Your task to perform on an android device: turn notification dots on Image 0: 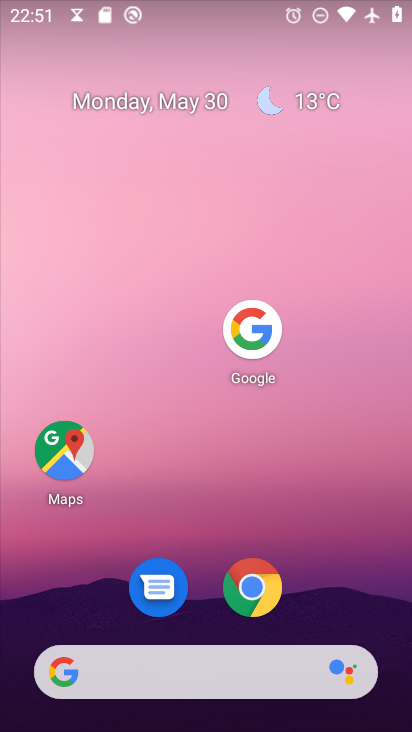
Step 0: drag from (167, 668) to (271, 129)
Your task to perform on an android device: turn notification dots on Image 1: 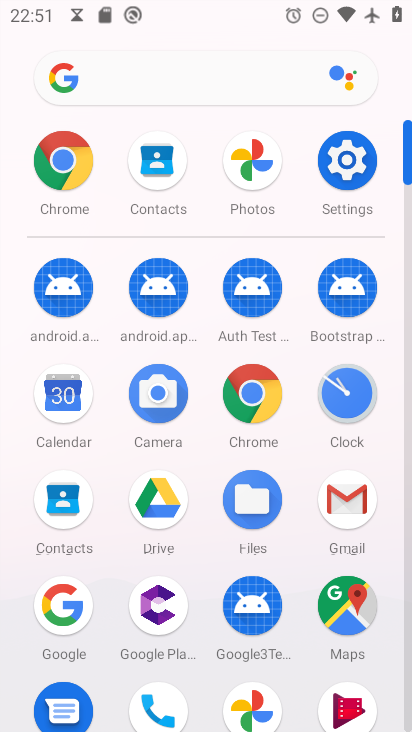
Step 1: click (349, 169)
Your task to perform on an android device: turn notification dots on Image 2: 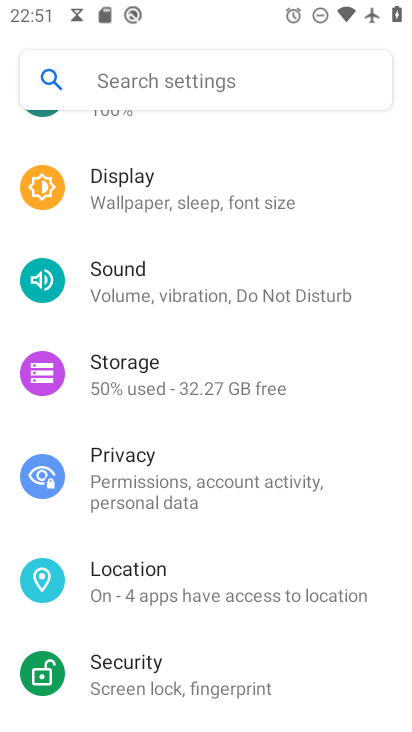
Step 2: drag from (310, 237) to (253, 578)
Your task to perform on an android device: turn notification dots on Image 3: 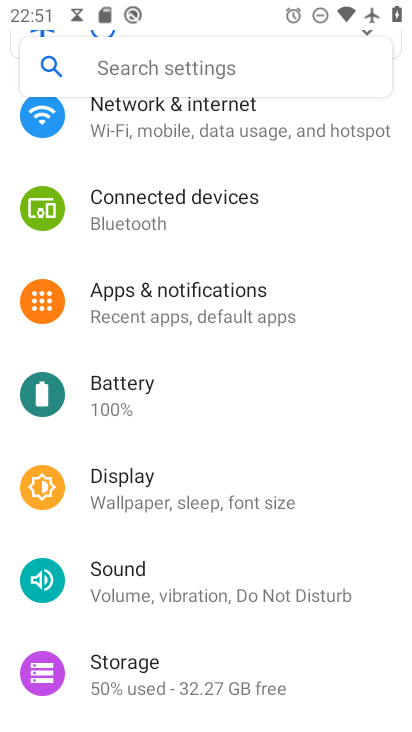
Step 3: click (217, 290)
Your task to perform on an android device: turn notification dots on Image 4: 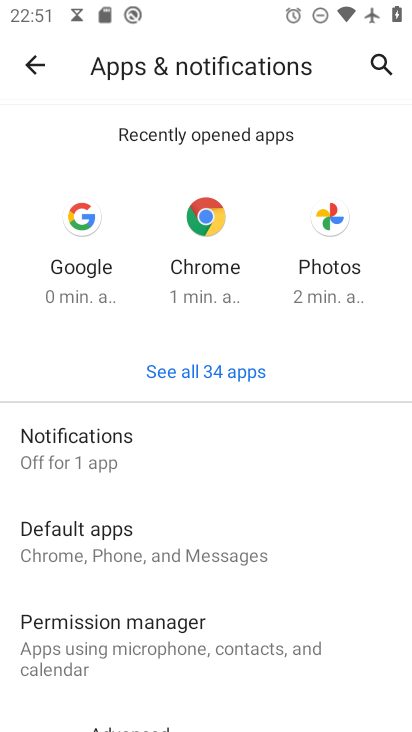
Step 4: click (76, 445)
Your task to perform on an android device: turn notification dots on Image 5: 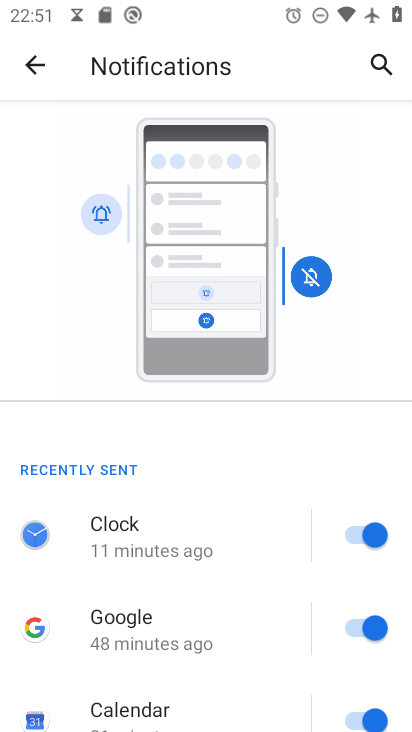
Step 5: drag from (199, 698) to (385, 266)
Your task to perform on an android device: turn notification dots on Image 6: 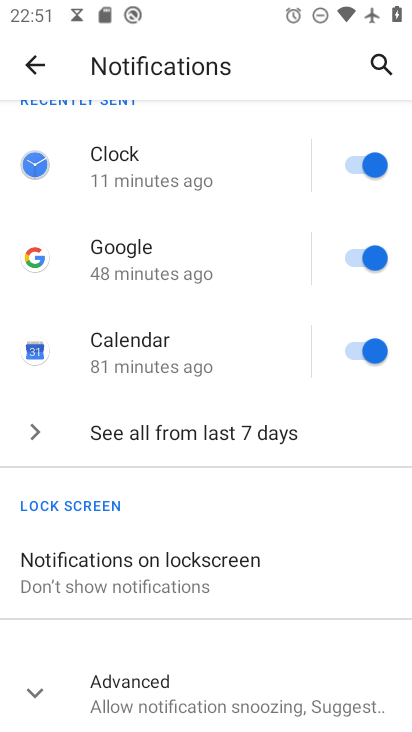
Step 6: drag from (304, 638) to (336, 434)
Your task to perform on an android device: turn notification dots on Image 7: 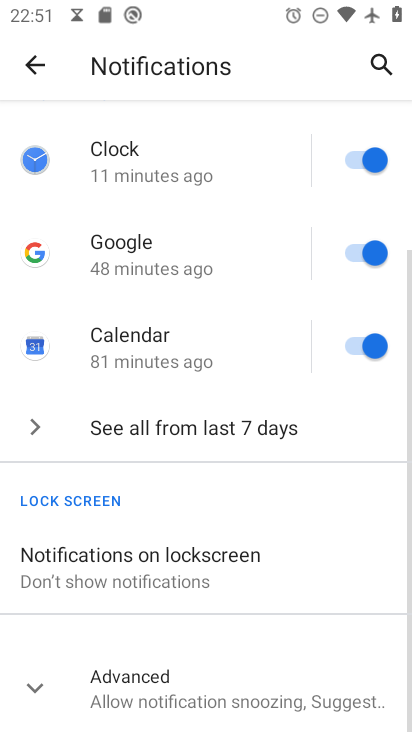
Step 7: click (172, 691)
Your task to perform on an android device: turn notification dots on Image 8: 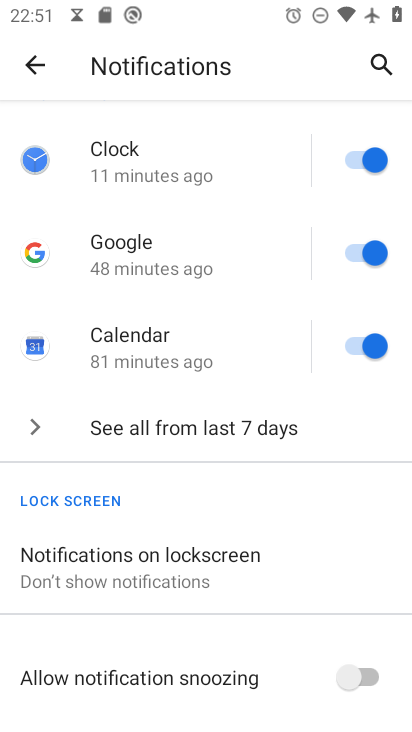
Step 8: task complete